Your task to perform on an android device: install app "Adobe Acrobat Reader" Image 0: 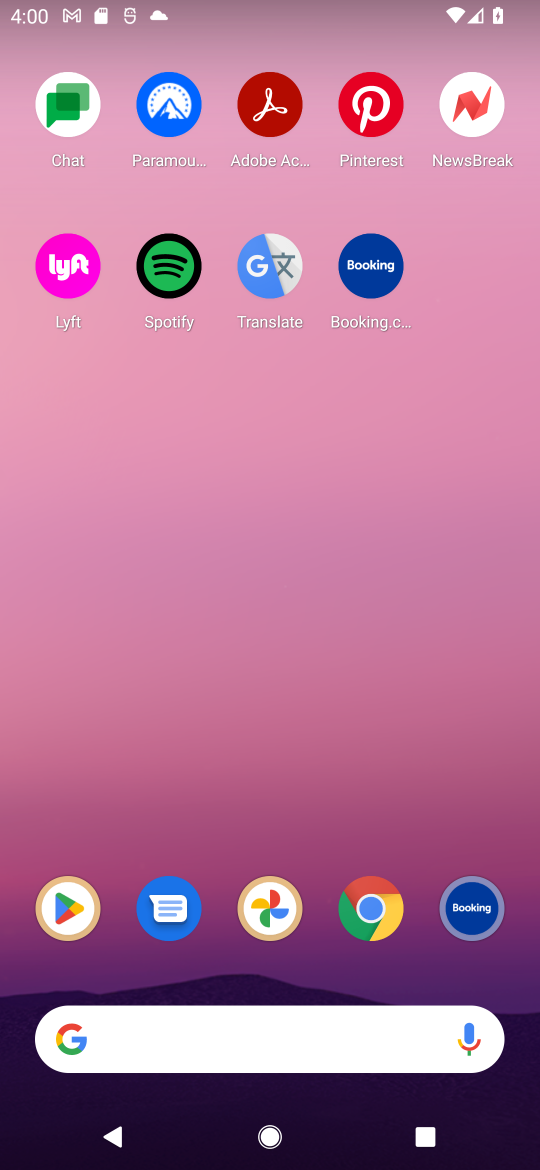
Step 0: press home button
Your task to perform on an android device: install app "Adobe Acrobat Reader" Image 1: 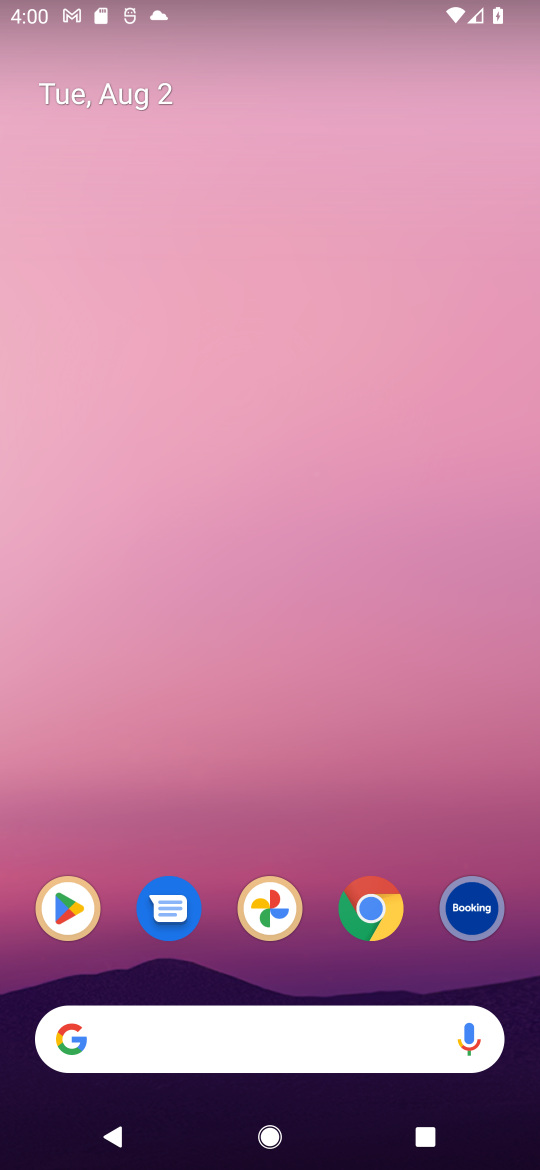
Step 1: click (59, 896)
Your task to perform on an android device: install app "Adobe Acrobat Reader" Image 2: 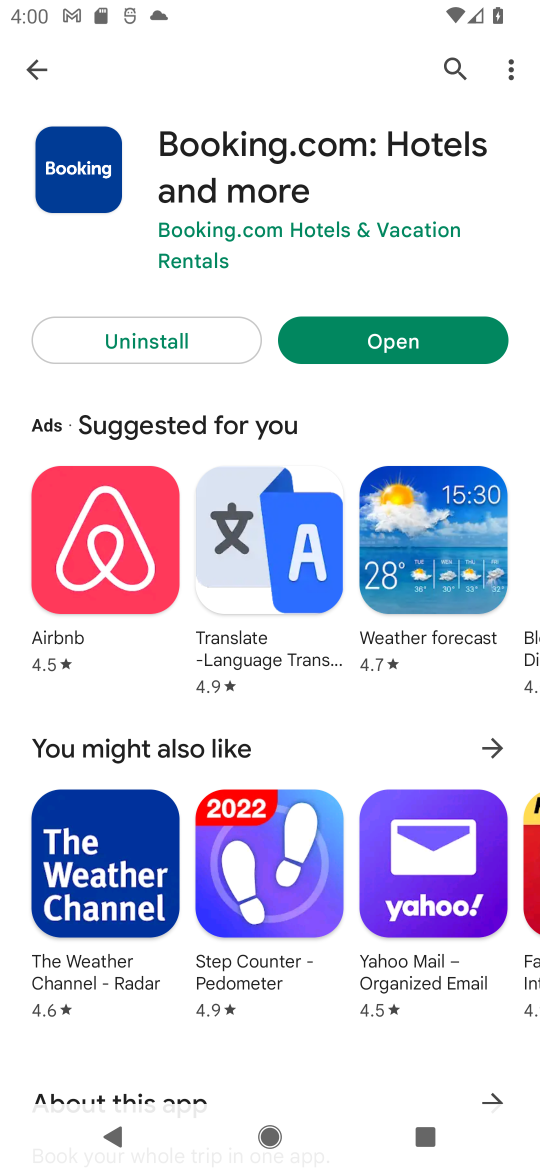
Step 2: click (452, 70)
Your task to perform on an android device: install app "Adobe Acrobat Reader" Image 3: 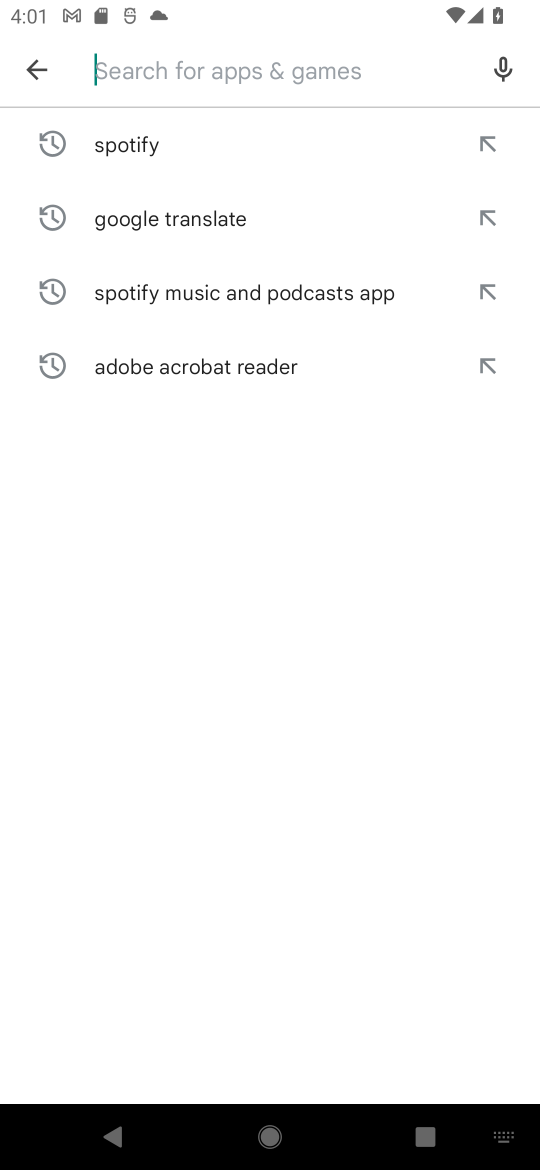
Step 3: type "Adobe Acrobat Reader"
Your task to perform on an android device: install app "Adobe Acrobat Reader" Image 4: 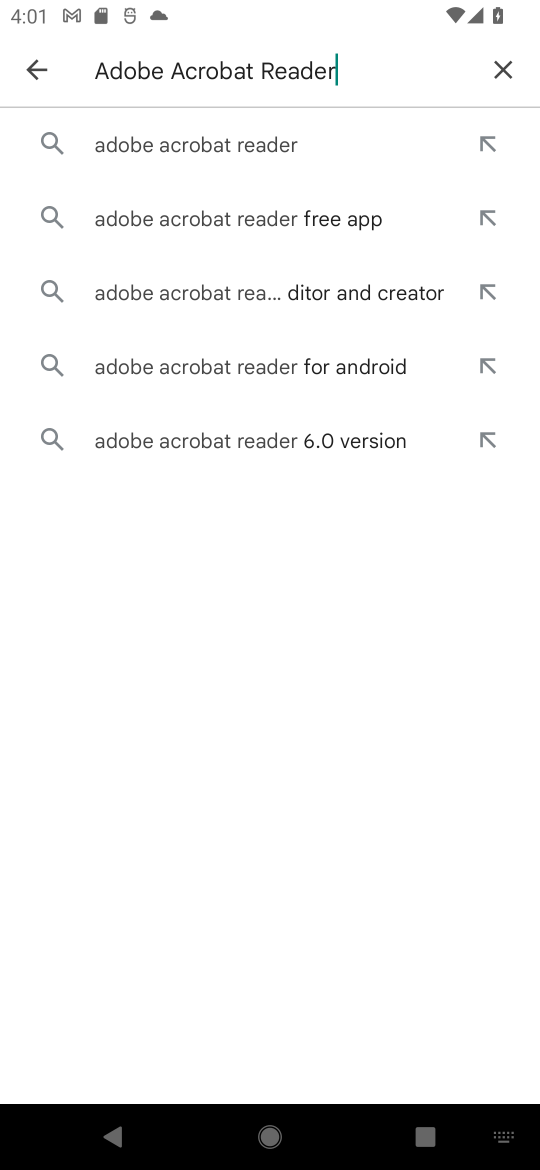
Step 4: click (175, 137)
Your task to perform on an android device: install app "Adobe Acrobat Reader" Image 5: 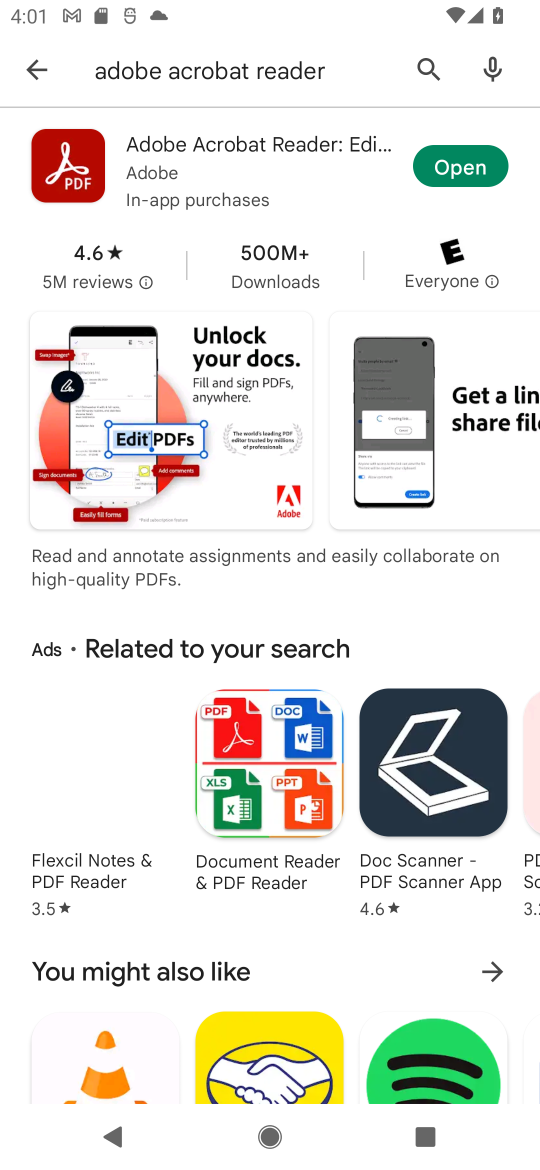
Step 5: click (465, 164)
Your task to perform on an android device: install app "Adobe Acrobat Reader" Image 6: 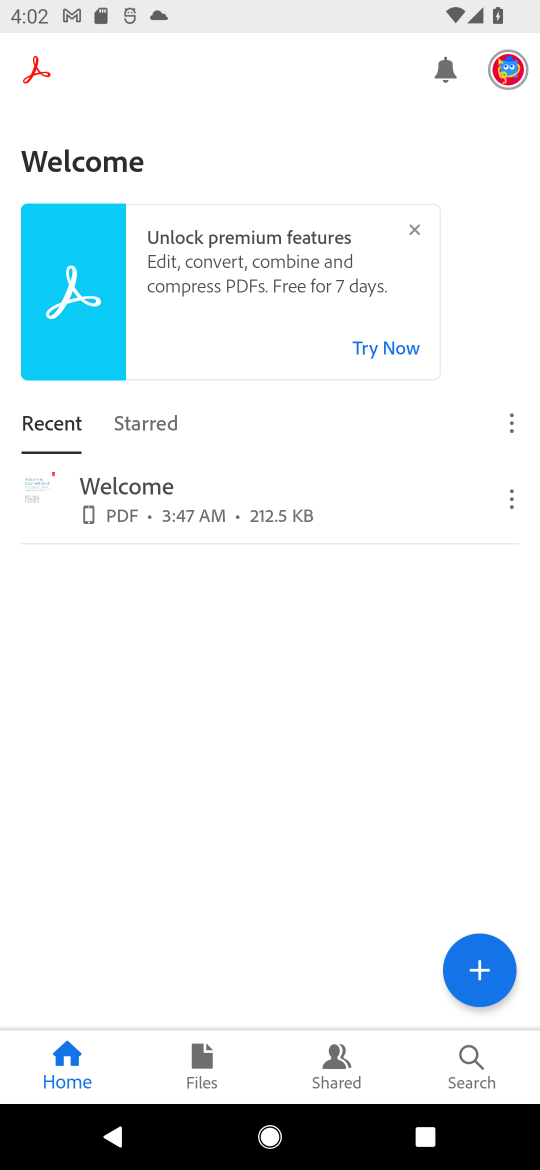
Step 6: task complete